Your task to perform on an android device: turn notification dots on Image 0: 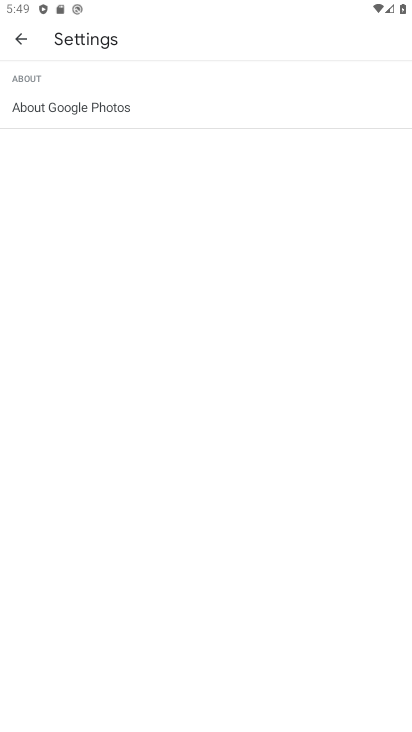
Step 0: press home button
Your task to perform on an android device: turn notification dots on Image 1: 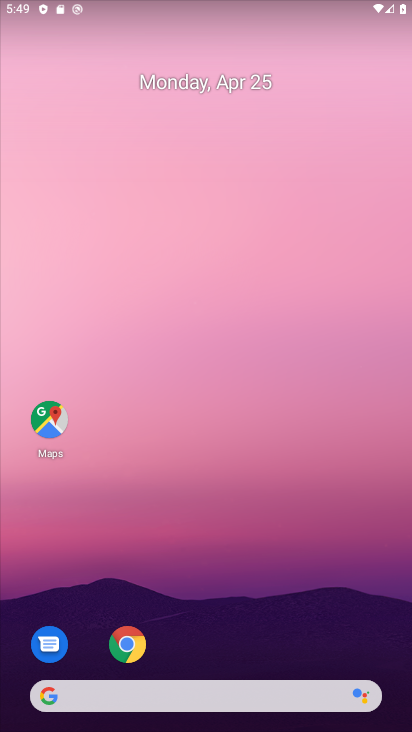
Step 1: drag from (260, 606) to (285, 85)
Your task to perform on an android device: turn notification dots on Image 2: 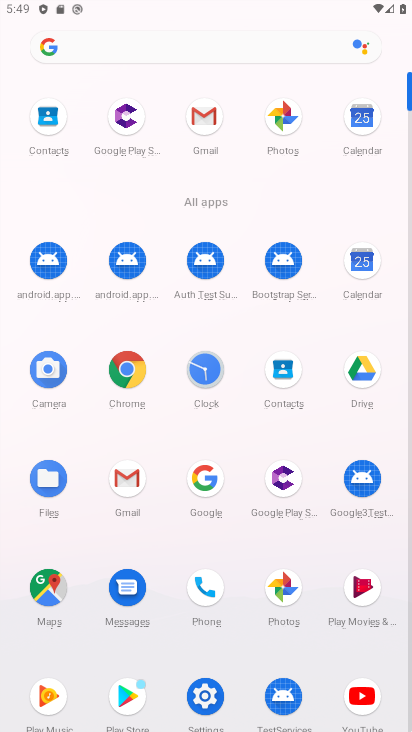
Step 2: click (210, 698)
Your task to perform on an android device: turn notification dots on Image 3: 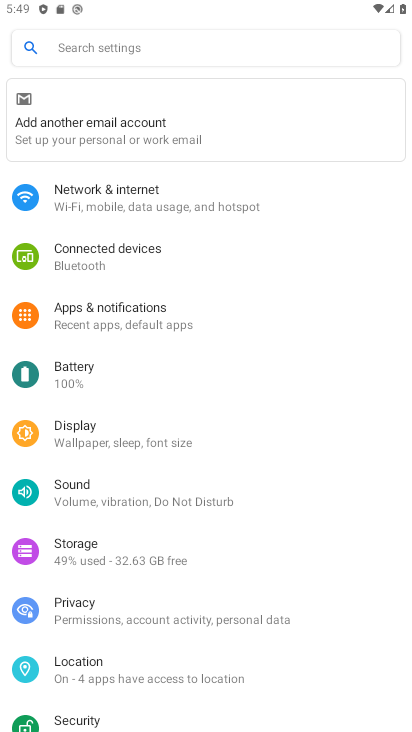
Step 3: click (100, 325)
Your task to perform on an android device: turn notification dots on Image 4: 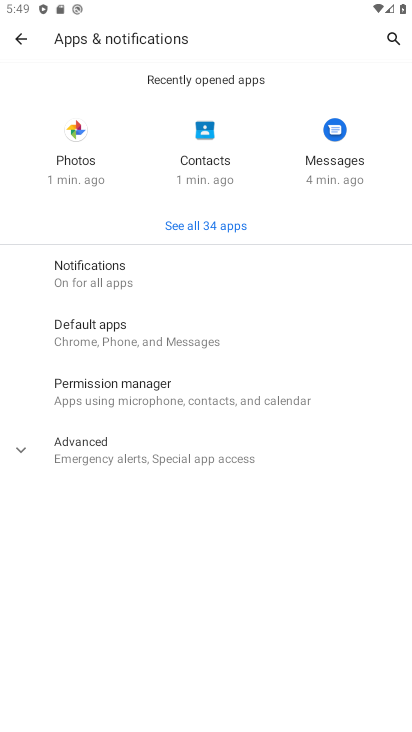
Step 4: click (128, 277)
Your task to perform on an android device: turn notification dots on Image 5: 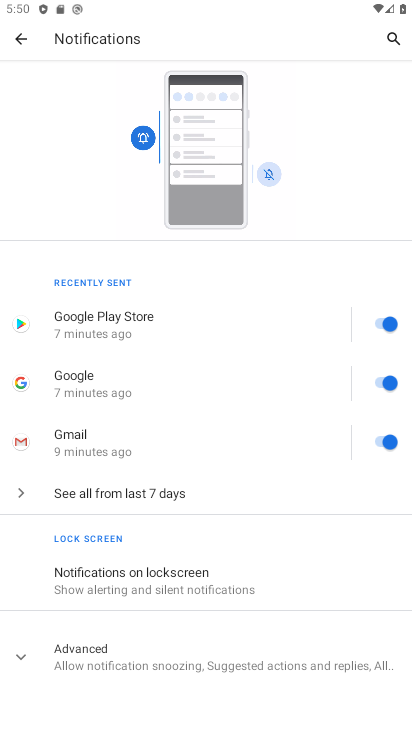
Step 5: click (182, 651)
Your task to perform on an android device: turn notification dots on Image 6: 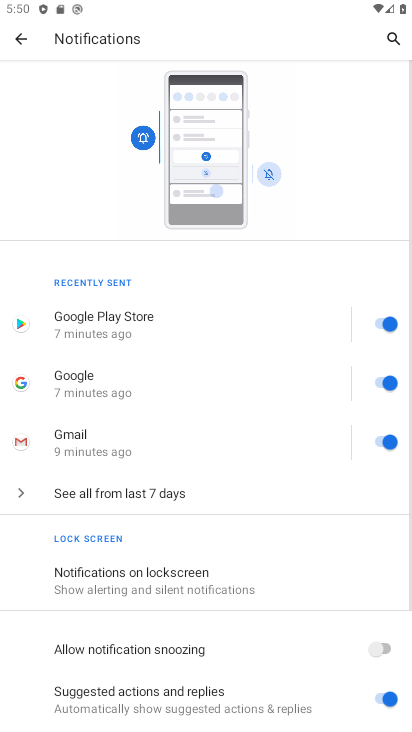
Step 6: task complete